Your task to perform on an android device: Search for vegetarian restaurants on Maps Image 0: 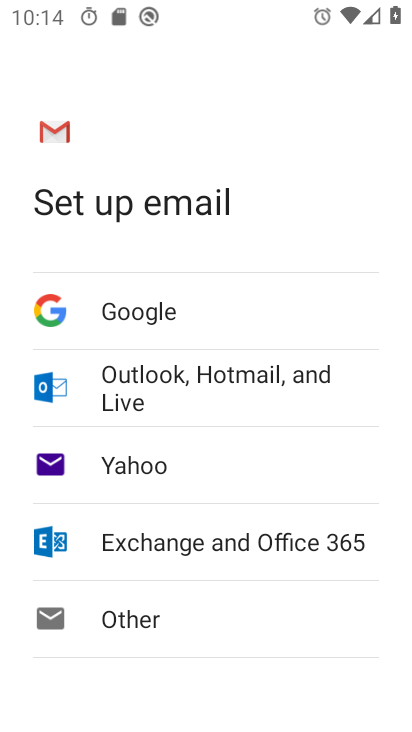
Step 0: press home button
Your task to perform on an android device: Search for vegetarian restaurants on Maps Image 1: 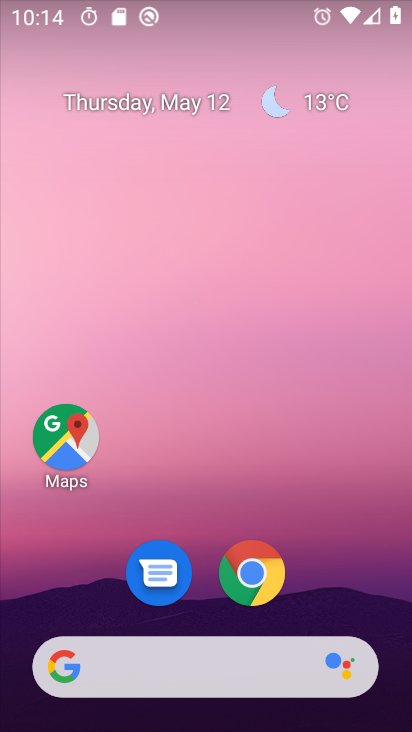
Step 1: click (74, 450)
Your task to perform on an android device: Search for vegetarian restaurants on Maps Image 2: 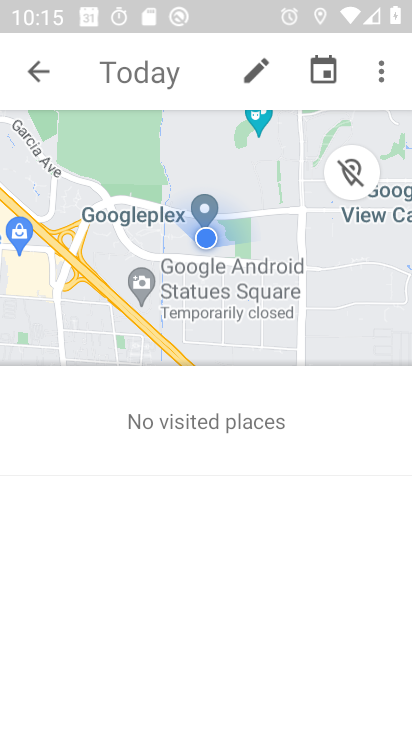
Step 2: click (35, 76)
Your task to perform on an android device: Search for vegetarian restaurants on Maps Image 3: 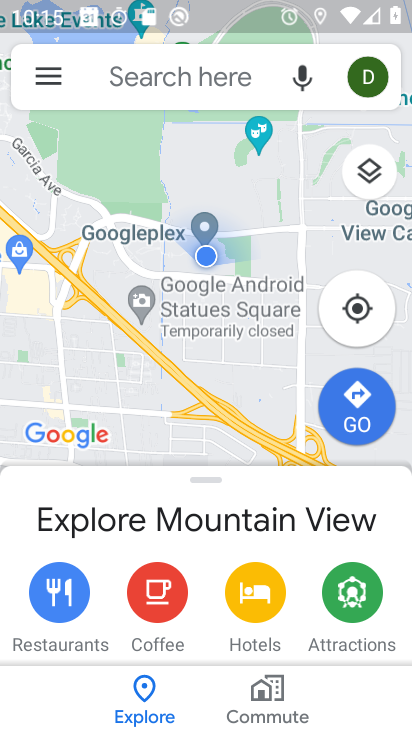
Step 3: click (119, 75)
Your task to perform on an android device: Search for vegetarian restaurants on Maps Image 4: 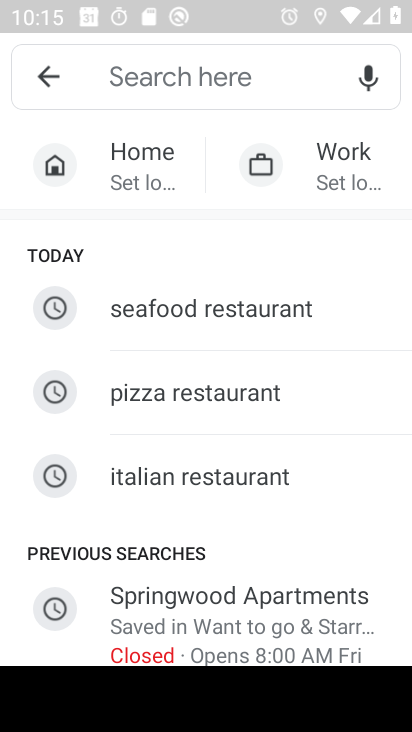
Step 4: type "vegetarian restaurants"
Your task to perform on an android device: Search for vegetarian restaurants on Maps Image 5: 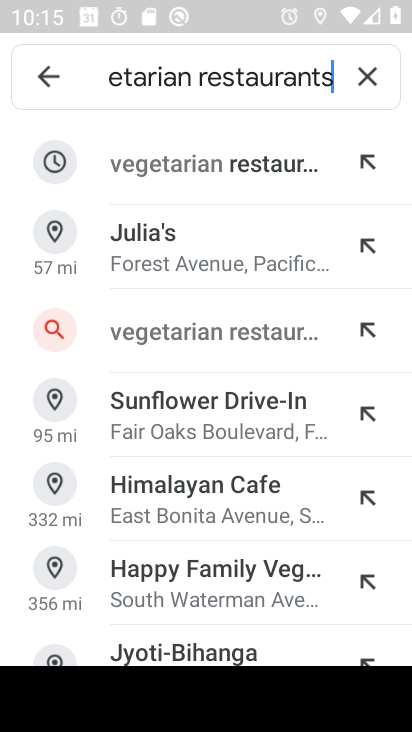
Step 5: click (202, 167)
Your task to perform on an android device: Search for vegetarian restaurants on Maps Image 6: 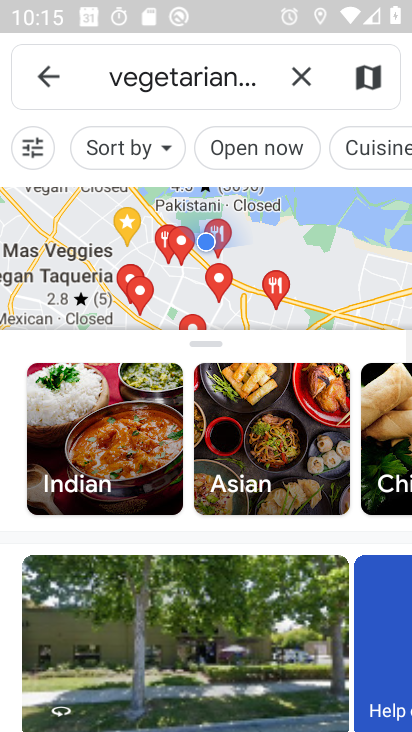
Step 6: task complete